Your task to perform on an android device: check the backup settings in the google photos Image 0: 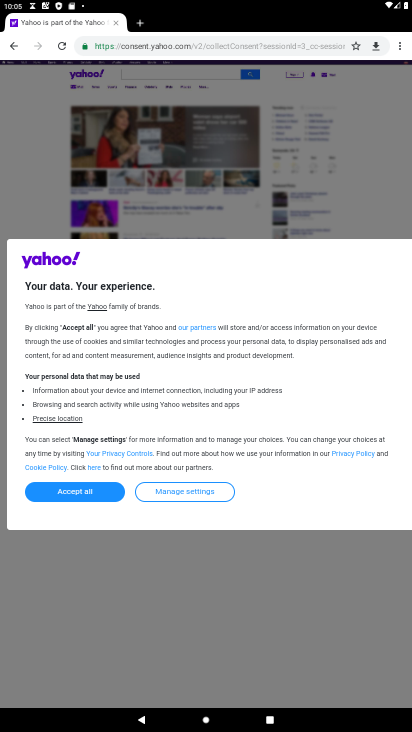
Step 0: press home button
Your task to perform on an android device: check the backup settings in the google photos Image 1: 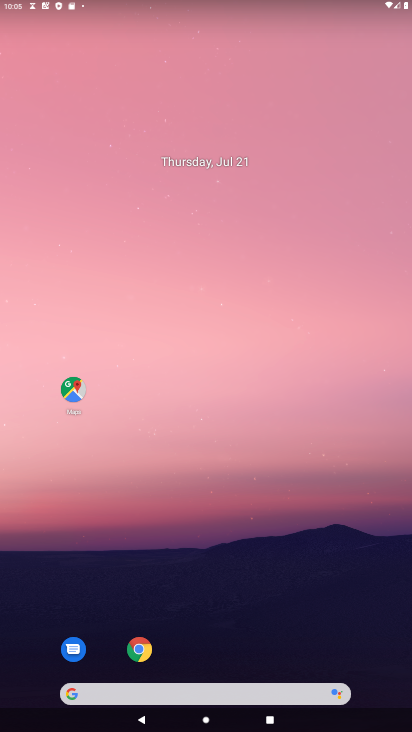
Step 1: drag from (216, 637) to (193, 0)
Your task to perform on an android device: check the backup settings in the google photos Image 2: 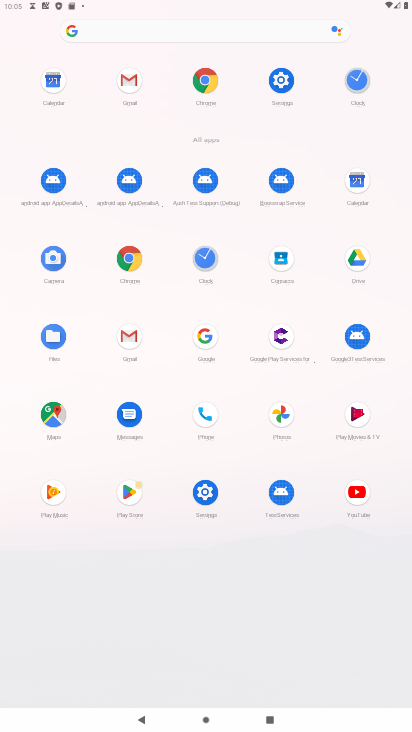
Step 2: click (288, 415)
Your task to perform on an android device: check the backup settings in the google photos Image 3: 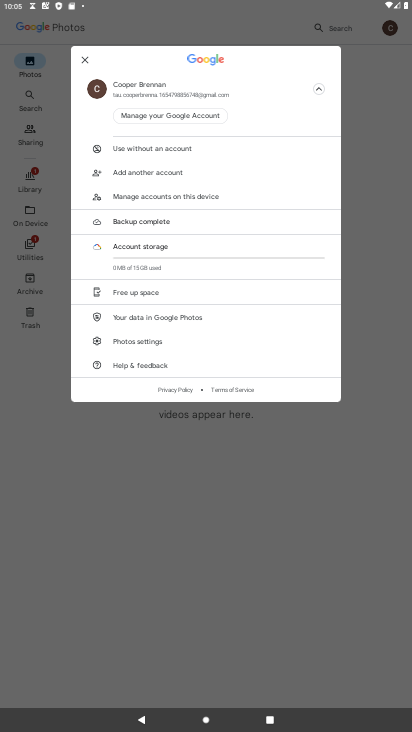
Step 3: click (157, 339)
Your task to perform on an android device: check the backup settings in the google photos Image 4: 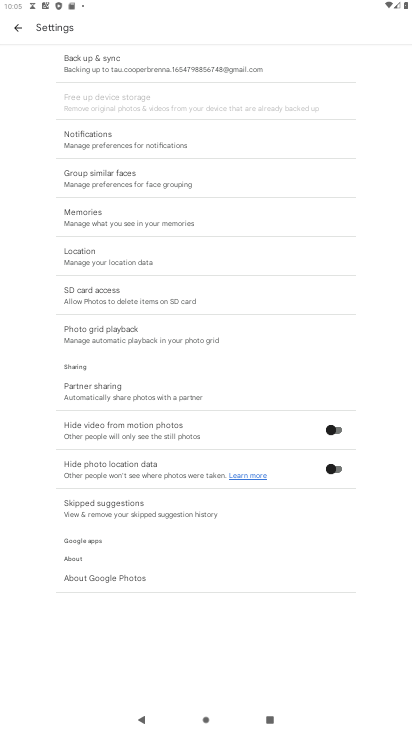
Step 4: click (78, 56)
Your task to perform on an android device: check the backup settings in the google photos Image 5: 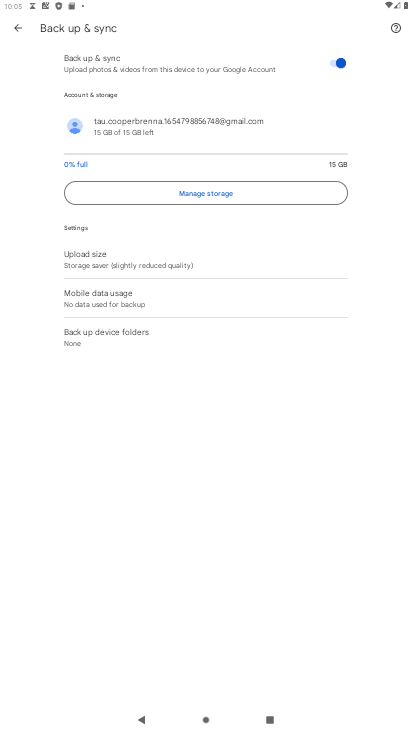
Step 5: click (156, 259)
Your task to perform on an android device: check the backup settings in the google photos Image 6: 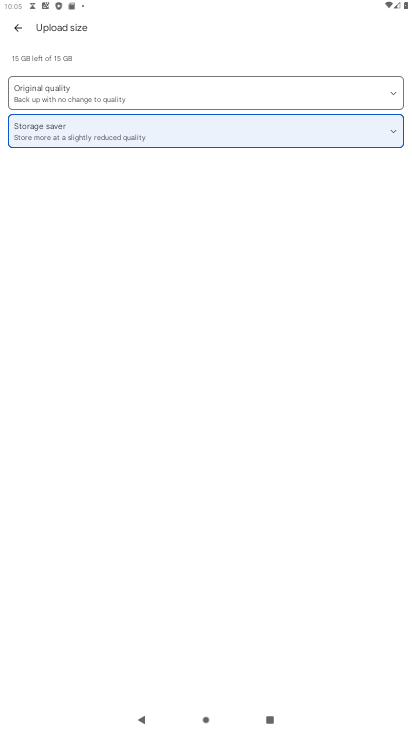
Step 6: click (66, 94)
Your task to perform on an android device: check the backup settings in the google photos Image 7: 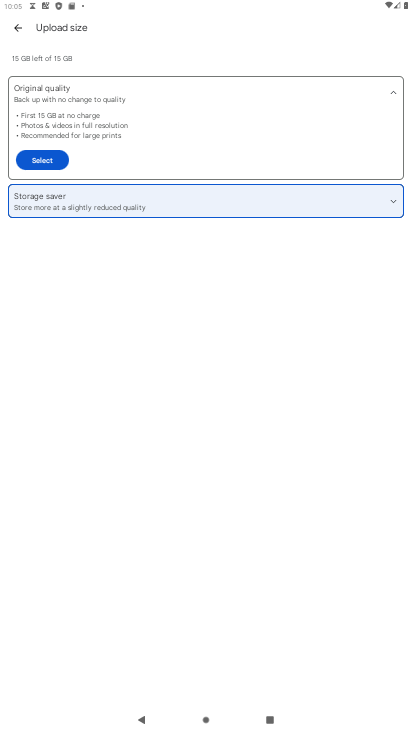
Step 7: click (50, 161)
Your task to perform on an android device: check the backup settings in the google photos Image 8: 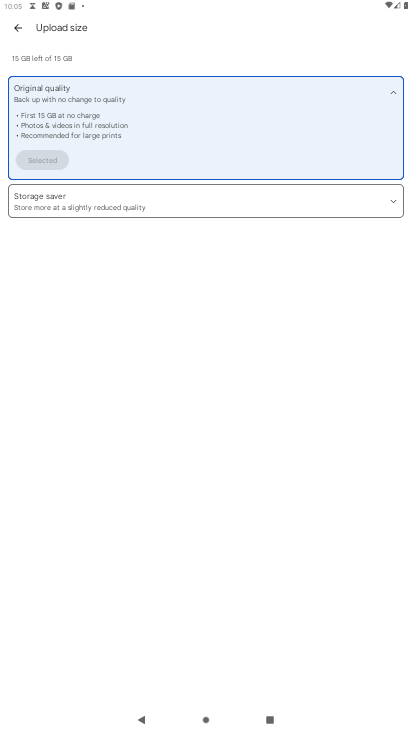
Step 8: task complete